Your task to perform on an android device: Open internet settings Image 0: 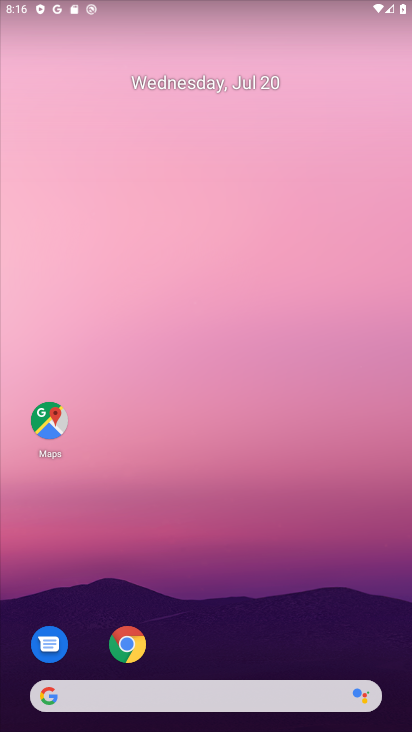
Step 0: drag from (275, 609) to (219, 170)
Your task to perform on an android device: Open internet settings Image 1: 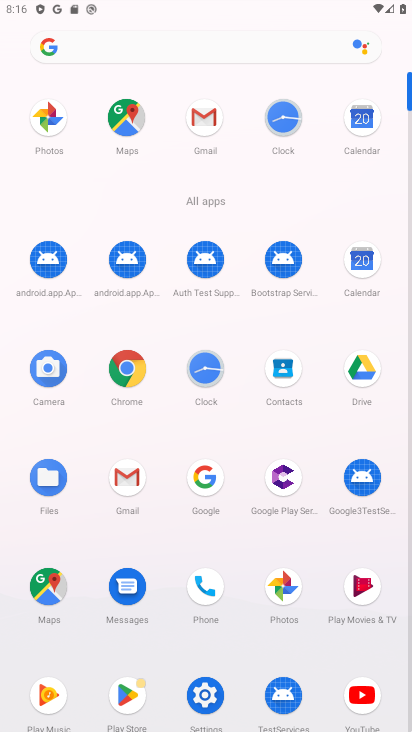
Step 1: click (203, 690)
Your task to perform on an android device: Open internet settings Image 2: 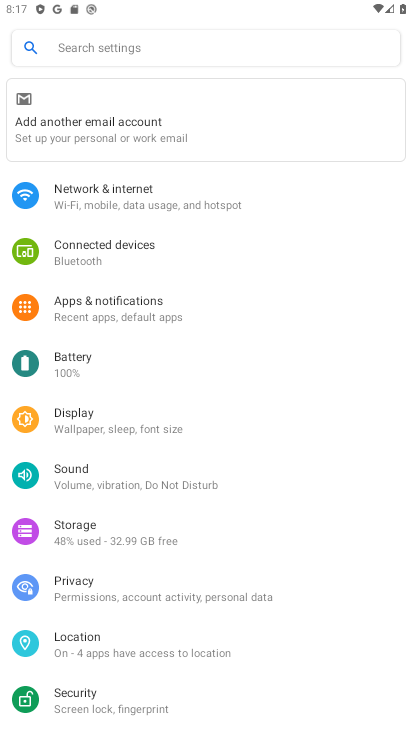
Step 2: click (171, 182)
Your task to perform on an android device: Open internet settings Image 3: 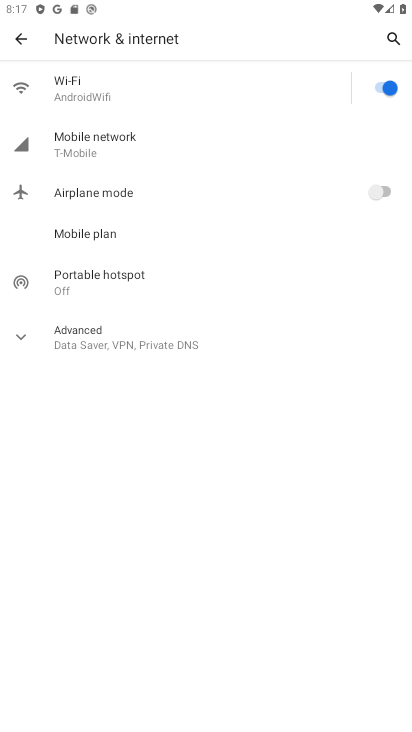
Step 3: click (152, 143)
Your task to perform on an android device: Open internet settings Image 4: 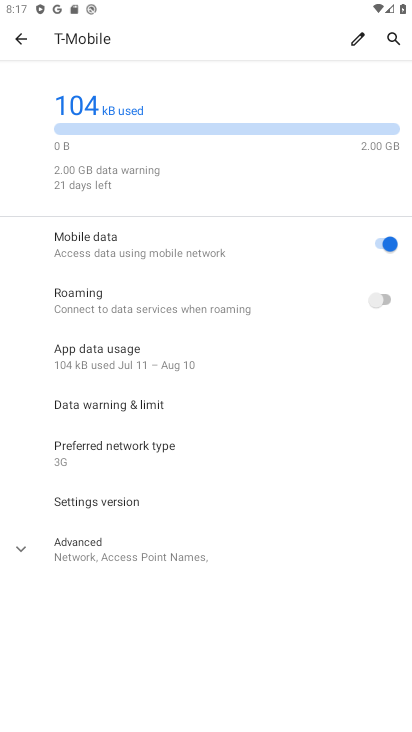
Step 4: task complete